Your task to perform on an android device: Go to CNN.com Image 0: 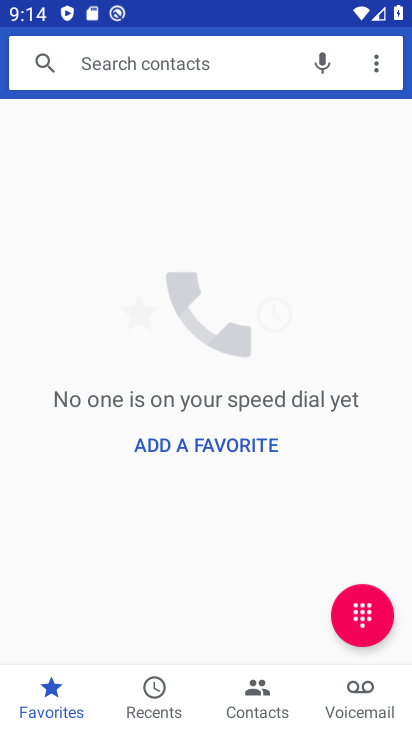
Step 0: press home button
Your task to perform on an android device: Go to CNN.com Image 1: 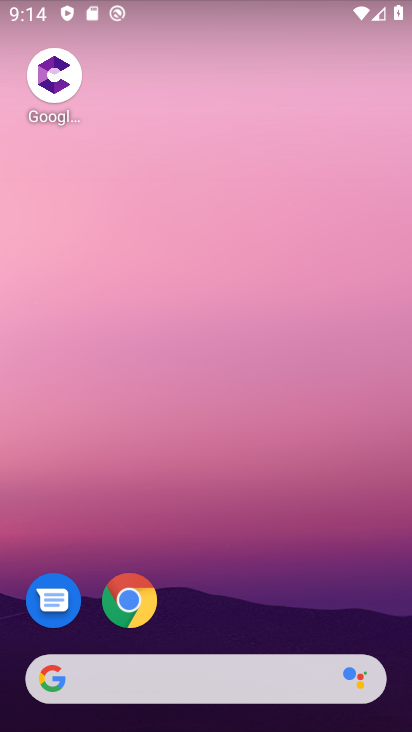
Step 1: click (126, 605)
Your task to perform on an android device: Go to CNN.com Image 2: 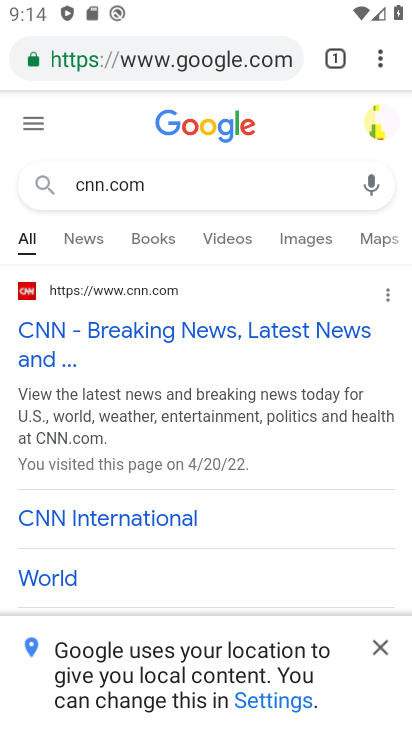
Step 2: click (131, 323)
Your task to perform on an android device: Go to CNN.com Image 3: 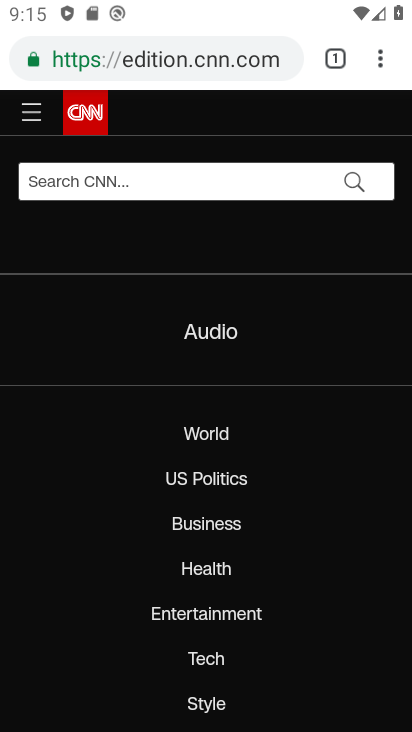
Step 3: task complete